Your task to perform on an android device: Open ESPN.com Image 0: 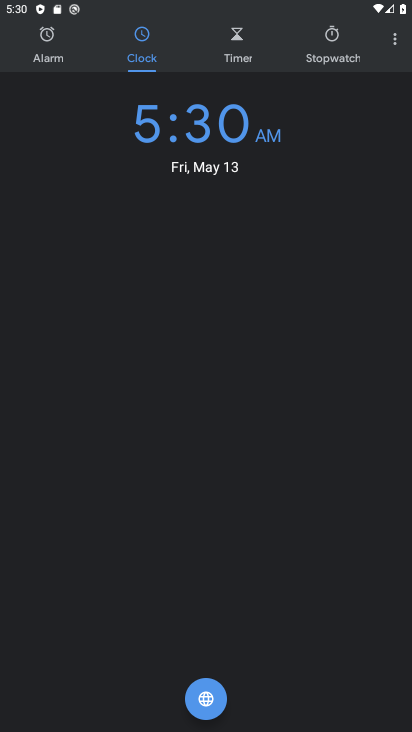
Step 0: press home button
Your task to perform on an android device: Open ESPN.com Image 1: 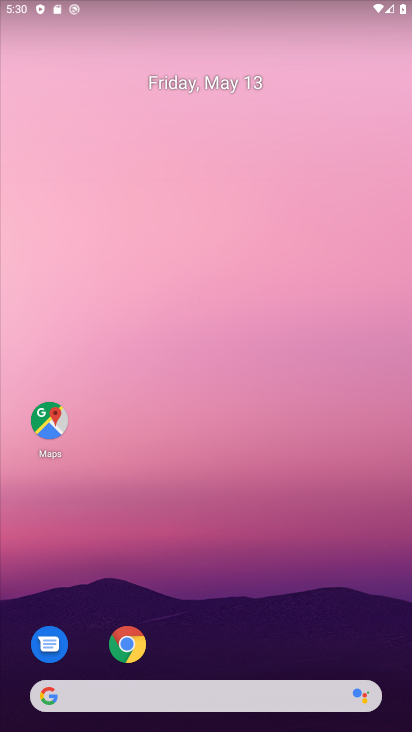
Step 1: click (143, 639)
Your task to perform on an android device: Open ESPN.com Image 2: 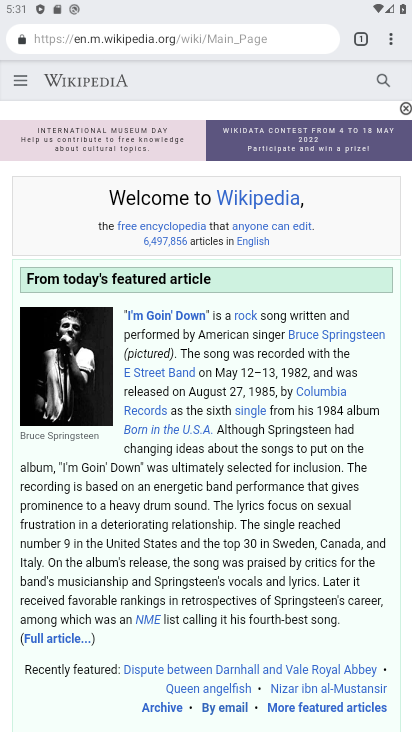
Step 2: click (187, 40)
Your task to perform on an android device: Open ESPN.com Image 3: 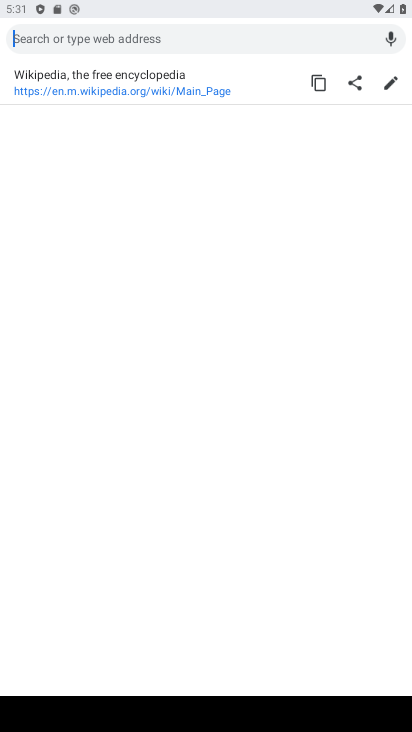
Step 3: type "ESPN.com"
Your task to perform on an android device: Open ESPN.com Image 4: 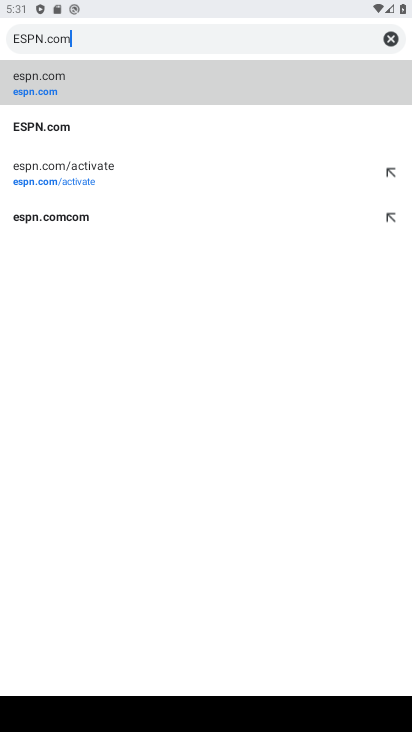
Step 4: click (109, 94)
Your task to perform on an android device: Open ESPN.com Image 5: 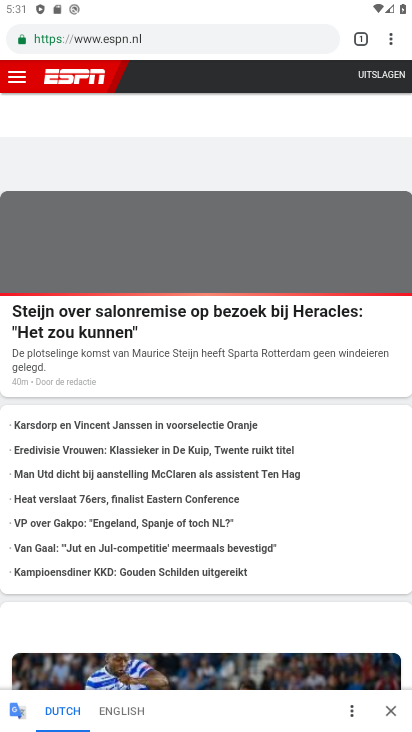
Step 5: task complete